Your task to perform on an android device: Go to display settings Image 0: 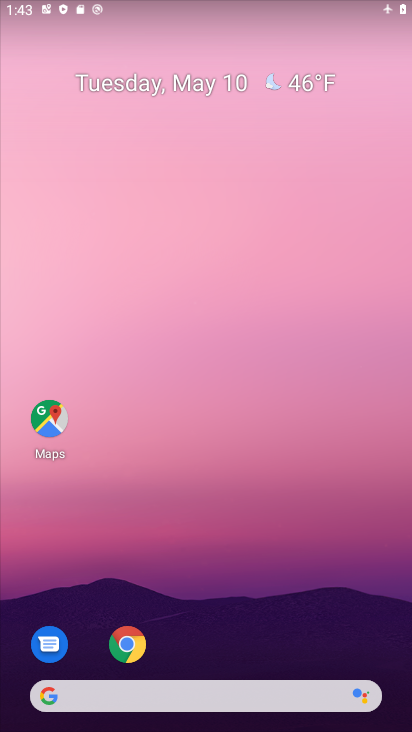
Step 0: drag from (221, 585) to (213, 193)
Your task to perform on an android device: Go to display settings Image 1: 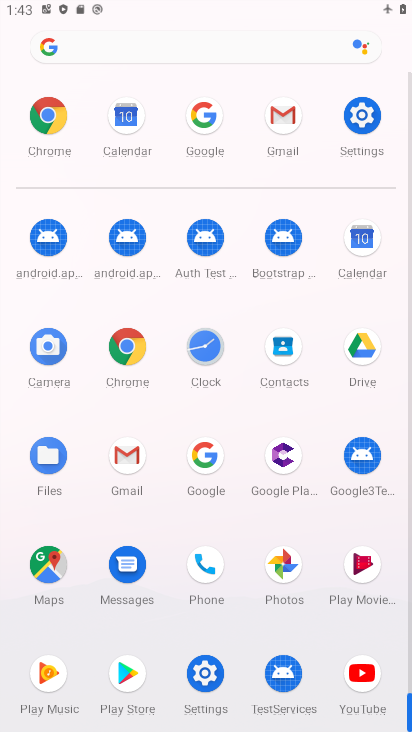
Step 1: click (364, 132)
Your task to perform on an android device: Go to display settings Image 2: 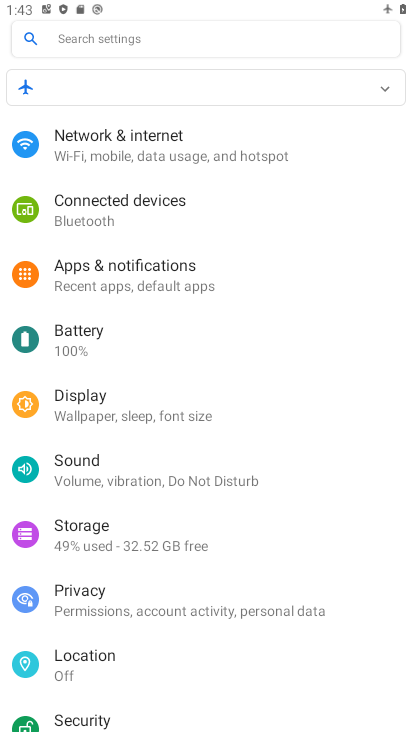
Step 2: click (107, 418)
Your task to perform on an android device: Go to display settings Image 3: 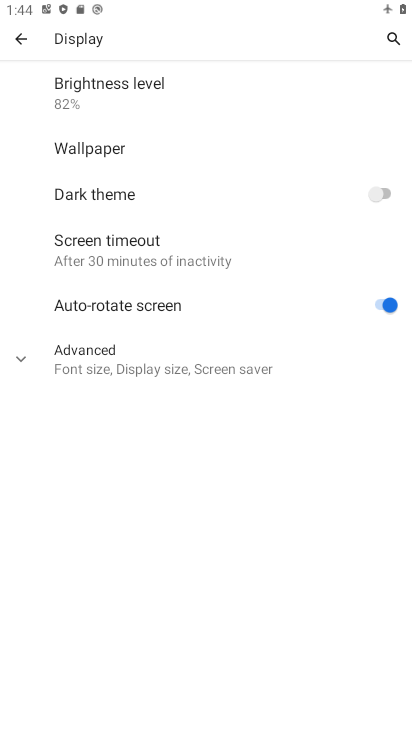
Step 3: task complete